Your task to perform on an android device: open app "AliExpress" (install if not already installed) Image 0: 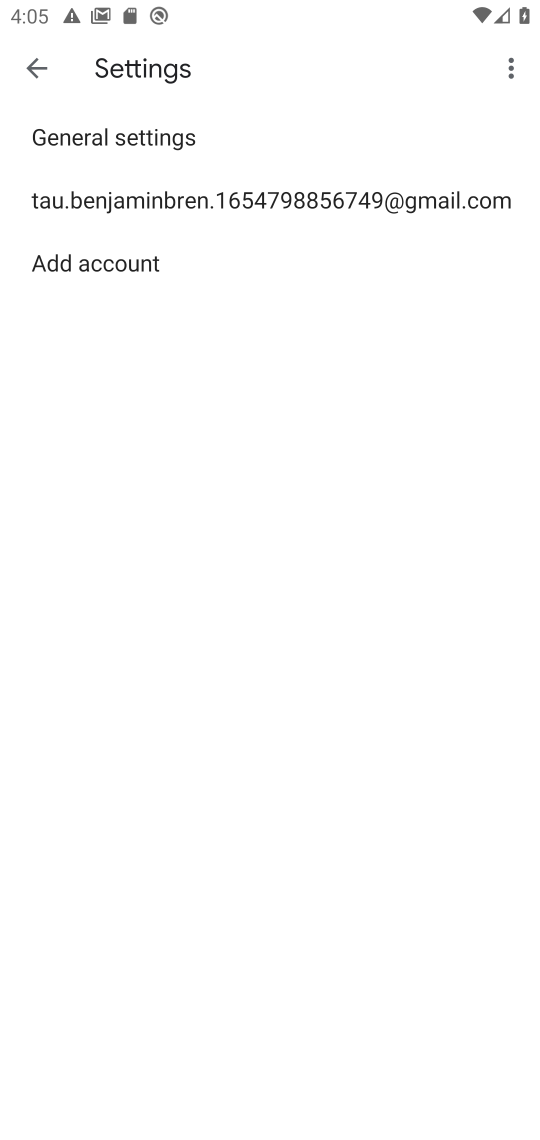
Step 0: press home button
Your task to perform on an android device: open app "AliExpress" (install if not already installed) Image 1: 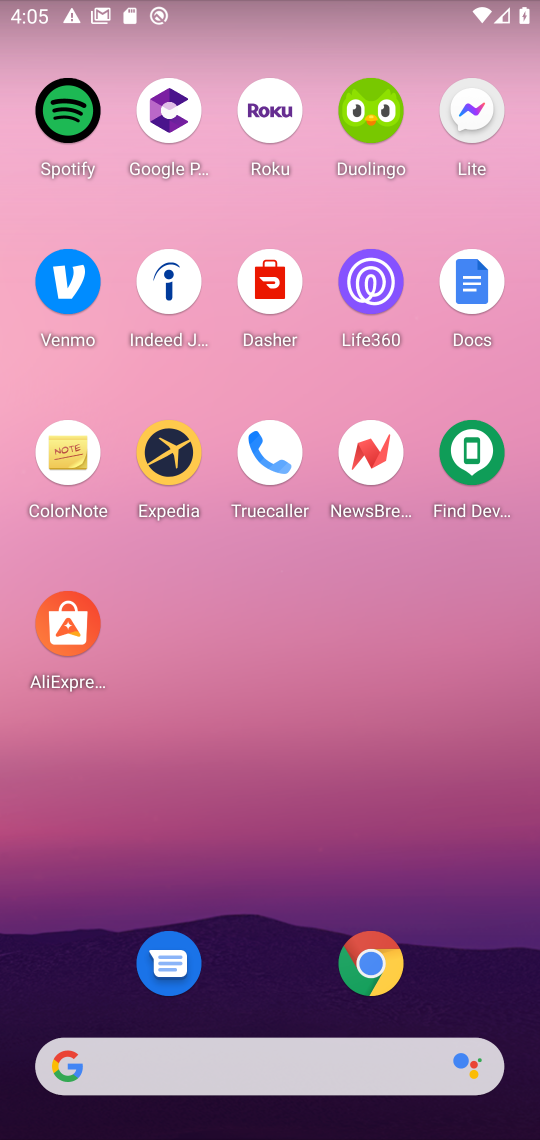
Step 1: drag from (251, 1042) to (40, 318)
Your task to perform on an android device: open app "AliExpress" (install if not already installed) Image 2: 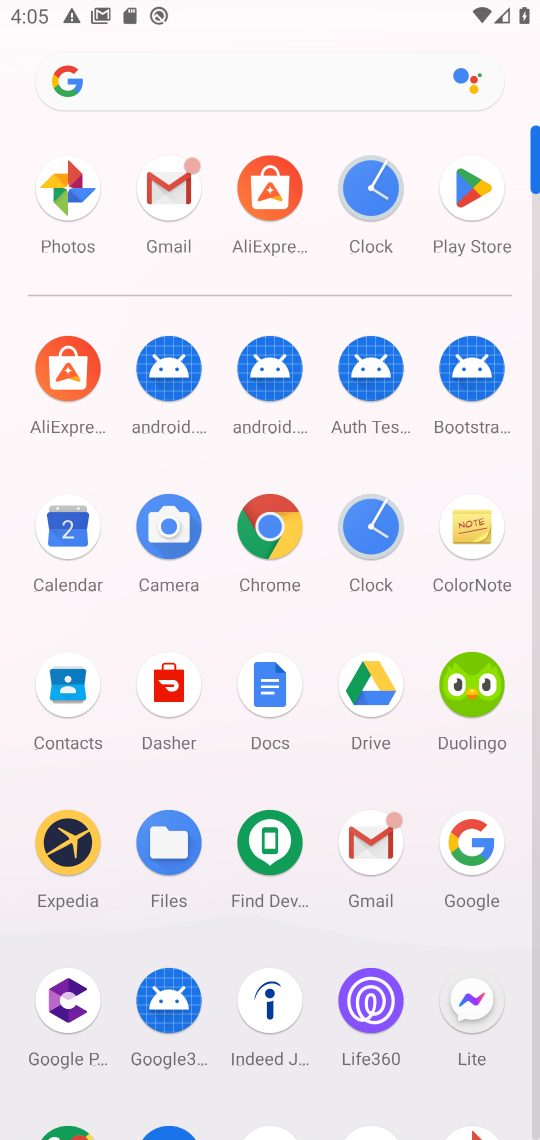
Step 2: click (43, 399)
Your task to perform on an android device: open app "AliExpress" (install if not already installed) Image 3: 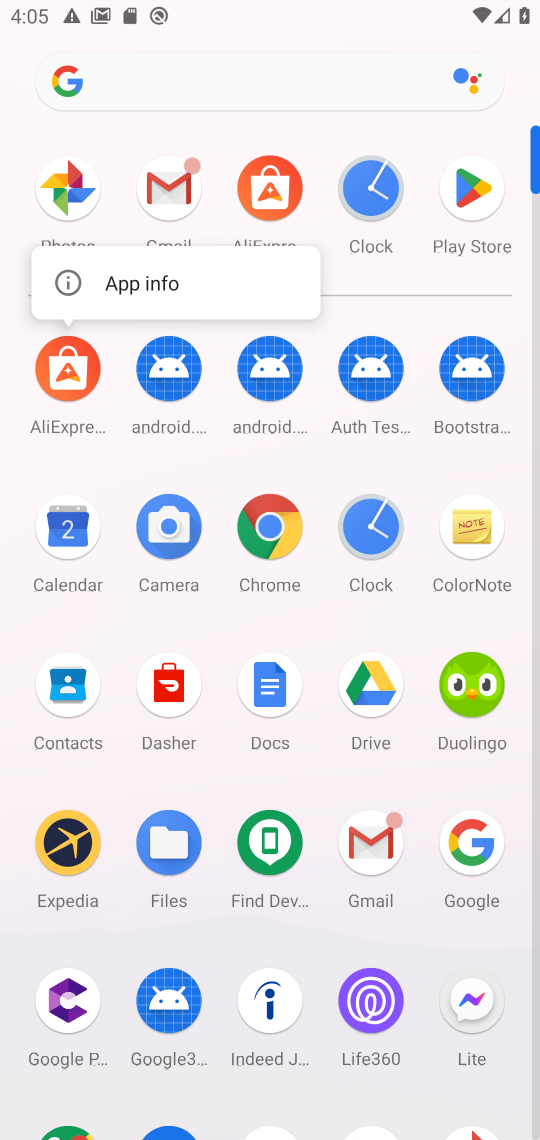
Step 3: click (61, 370)
Your task to perform on an android device: open app "AliExpress" (install if not already installed) Image 4: 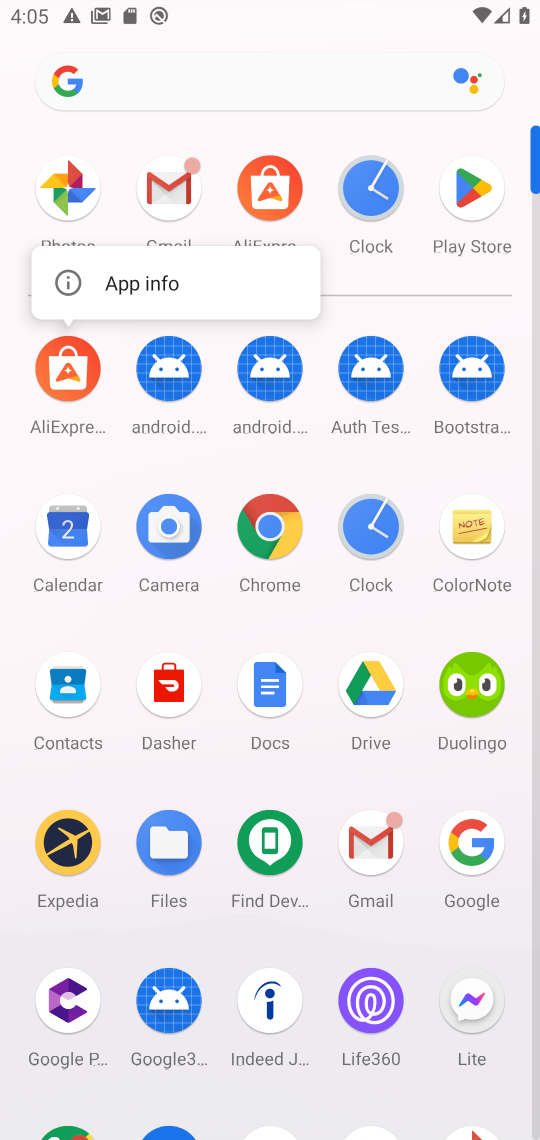
Step 4: click (61, 370)
Your task to perform on an android device: open app "AliExpress" (install if not already installed) Image 5: 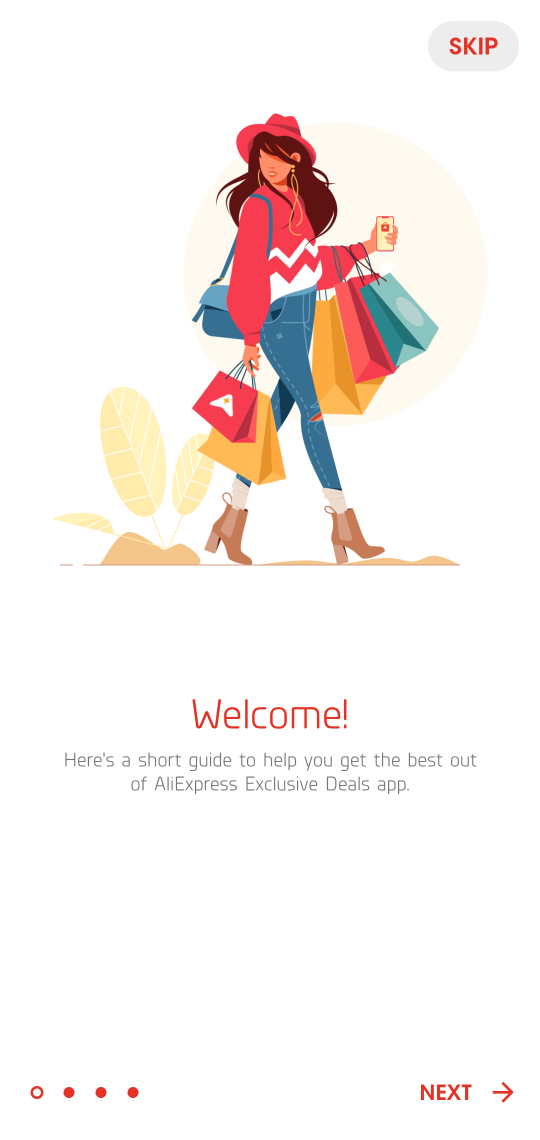
Step 5: task complete